Your task to perform on an android device: turn off javascript in the chrome app Image 0: 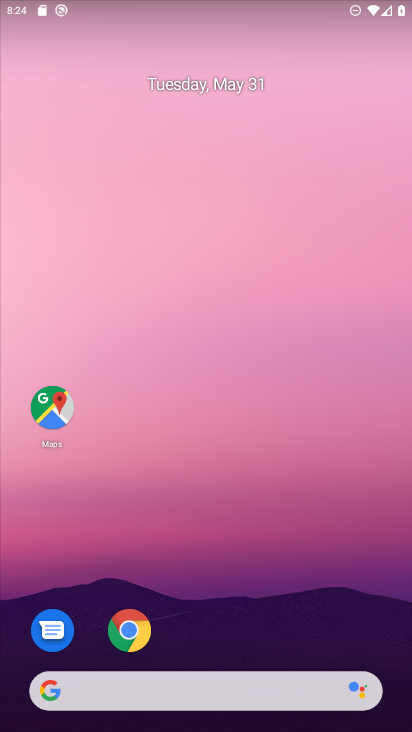
Step 0: click (127, 625)
Your task to perform on an android device: turn off javascript in the chrome app Image 1: 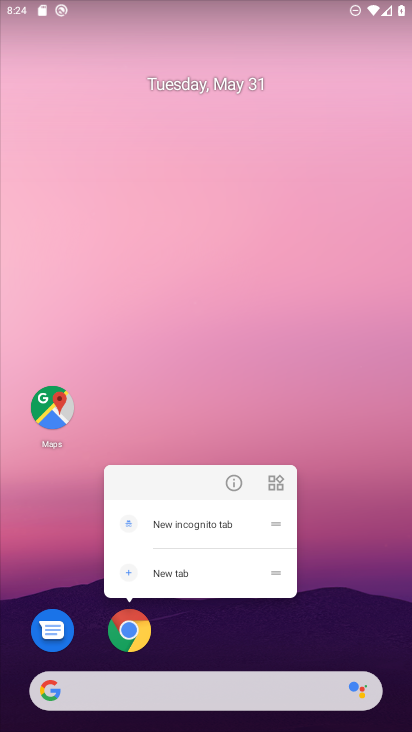
Step 1: click (122, 645)
Your task to perform on an android device: turn off javascript in the chrome app Image 2: 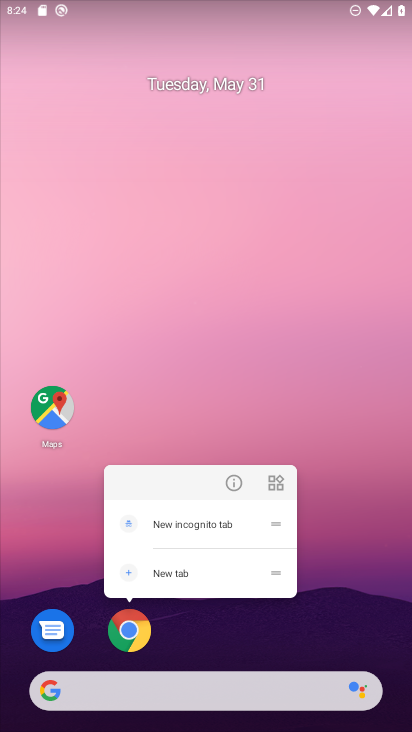
Step 2: click (122, 645)
Your task to perform on an android device: turn off javascript in the chrome app Image 3: 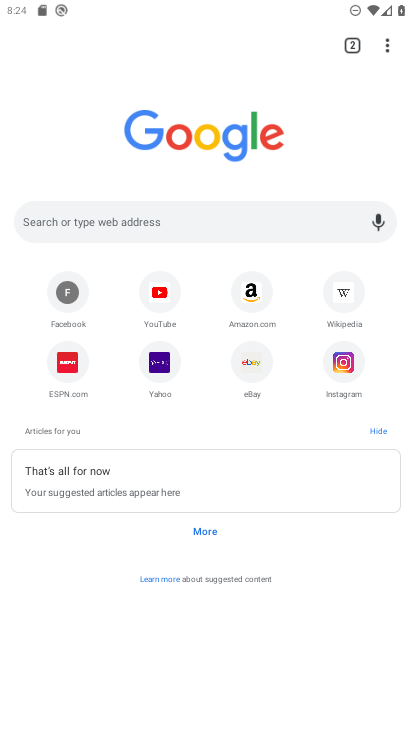
Step 3: click (385, 49)
Your task to perform on an android device: turn off javascript in the chrome app Image 4: 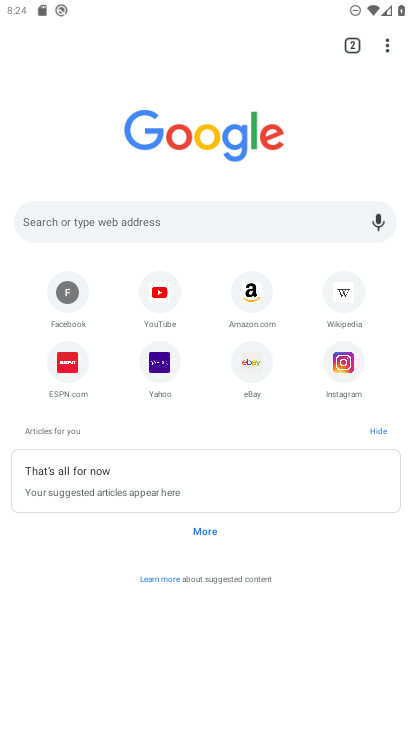
Step 4: drag from (385, 49) to (230, 377)
Your task to perform on an android device: turn off javascript in the chrome app Image 5: 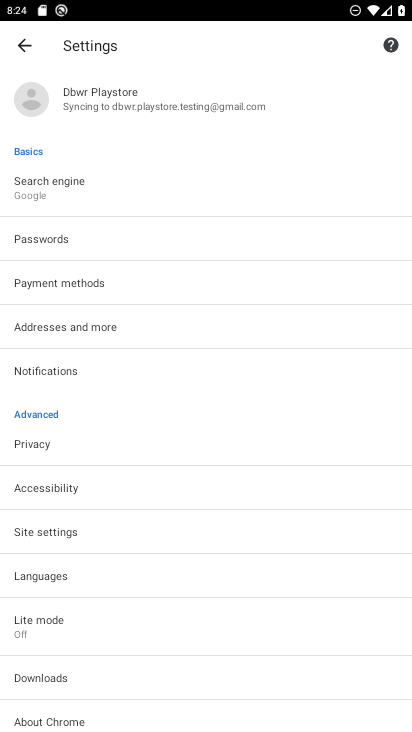
Step 5: click (45, 529)
Your task to perform on an android device: turn off javascript in the chrome app Image 6: 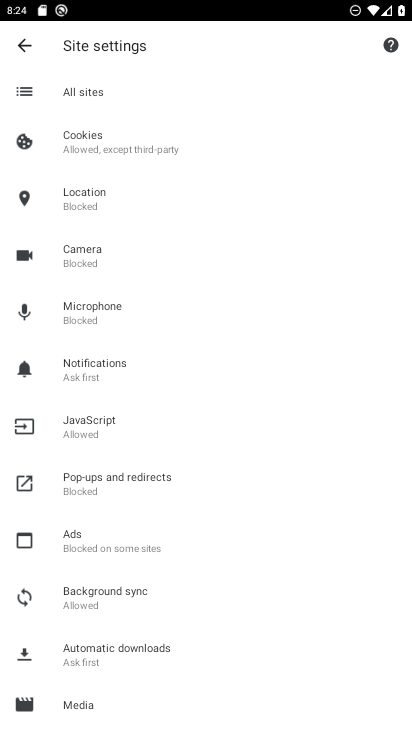
Step 6: click (131, 426)
Your task to perform on an android device: turn off javascript in the chrome app Image 7: 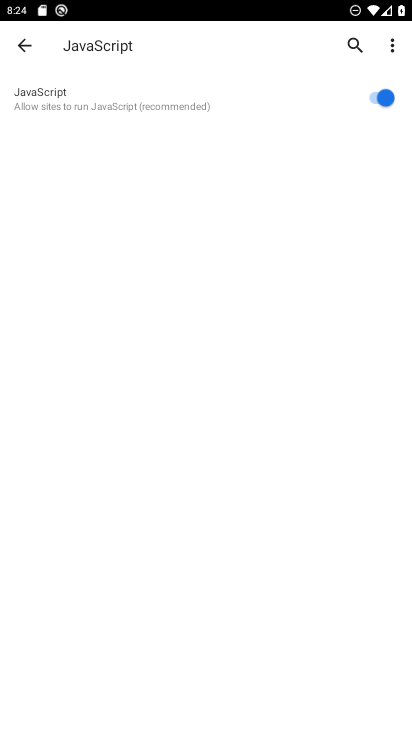
Step 7: click (378, 95)
Your task to perform on an android device: turn off javascript in the chrome app Image 8: 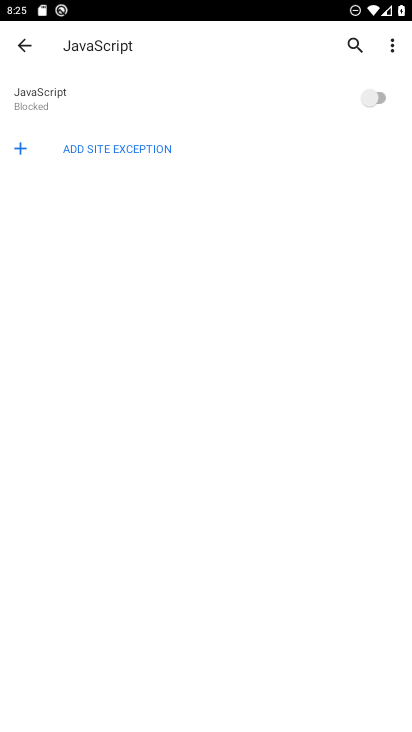
Step 8: task complete